Your task to perform on an android device: all mails in gmail Image 0: 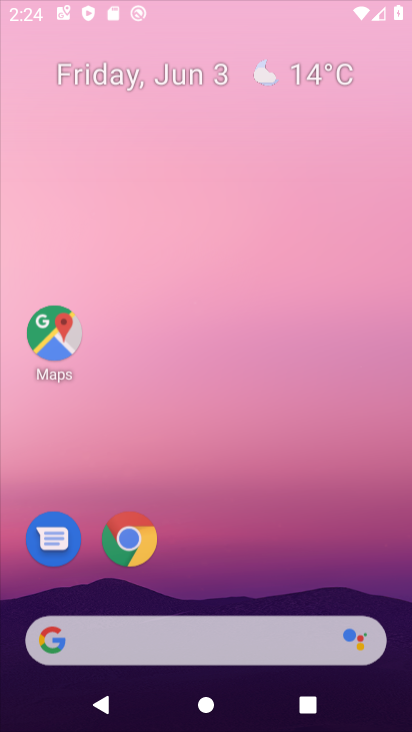
Step 0: click (319, 103)
Your task to perform on an android device: all mails in gmail Image 1: 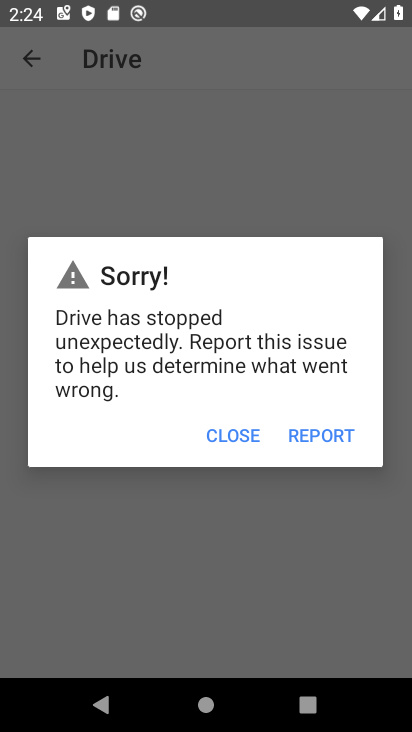
Step 1: press home button
Your task to perform on an android device: all mails in gmail Image 2: 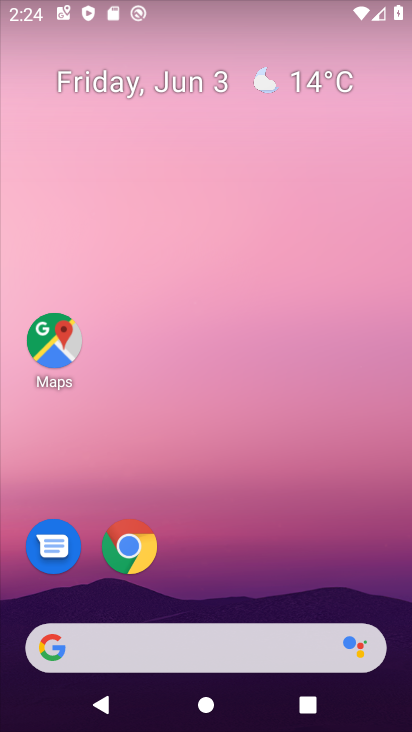
Step 2: drag from (352, 551) to (370, 94)
Your task to perform on an android device: all mails in gmail Image 3: 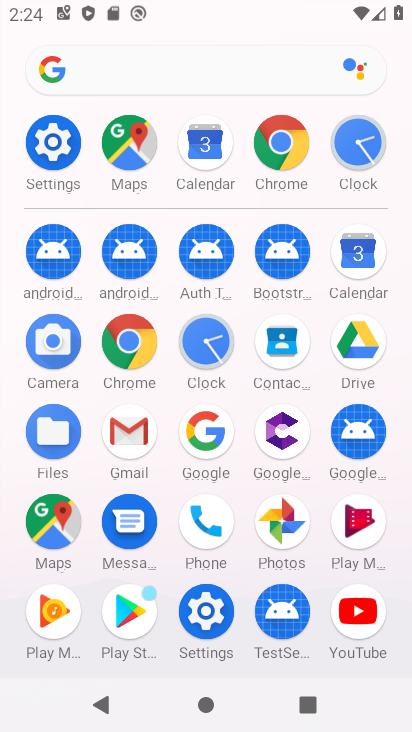
Step 3: click (134, 433)
Your task to perform on an android device: all mails in gmail Image 4: 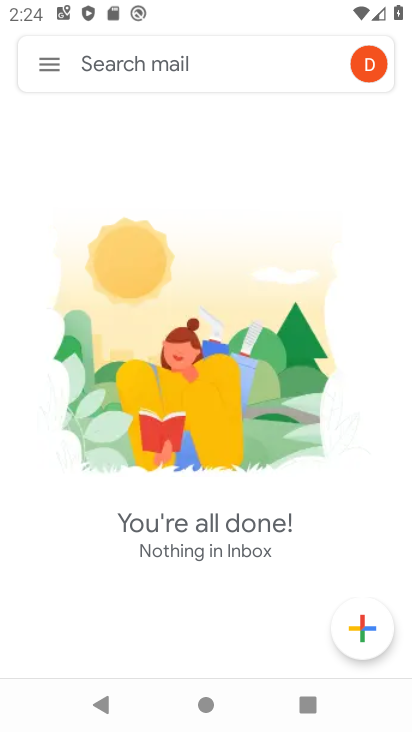
Step 4: click (44, 74)
Your task to perform on an android device: all mails in gmail Image 5: 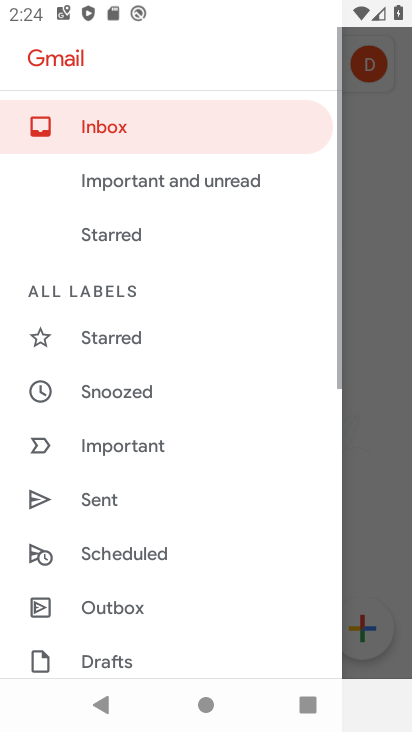
Step 5: drag from (150, 597) to (272, 172)
Your task to perform on an android device: all mails in gmail Image 6: 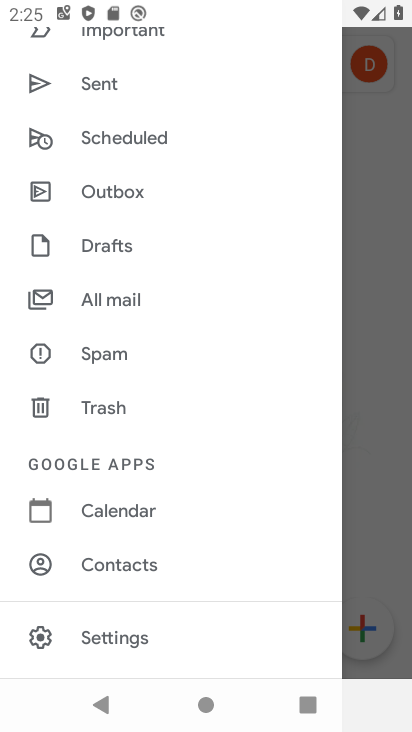
Step 6: click (127, 303)
Your task to perform on an android device: all mails in gmail Image 7: 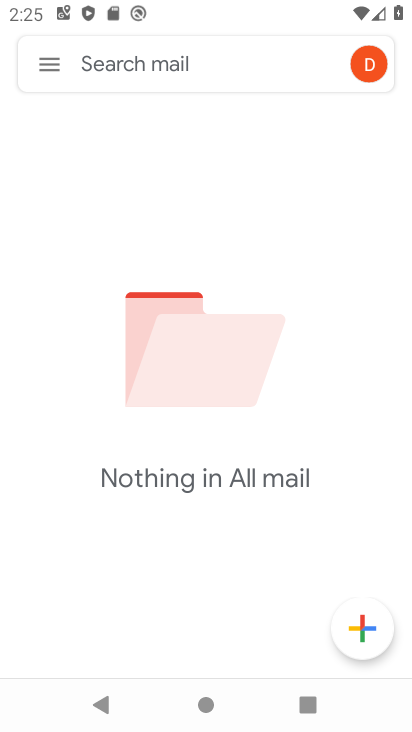
Step 7: task complete